Your task to perform on an android device: move an email to a new category in the gmail app Image 0: 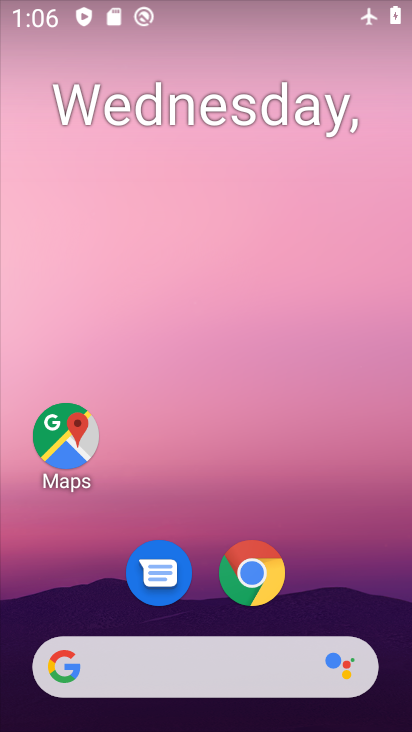
Step 0: drag from (221, 612) to (281, 154)
Your task to perform on an android device: move an email to a new category in the gmail app Image 1: 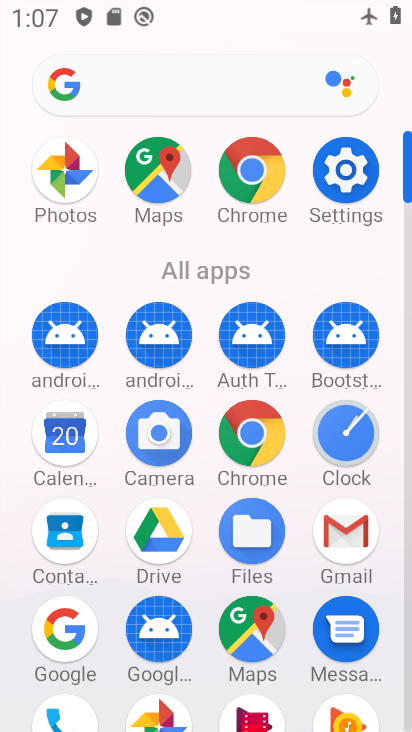
Step 1: click (349, 503)
Your task to perform on an android device: move an email to a new category in the gmail app Image 2: 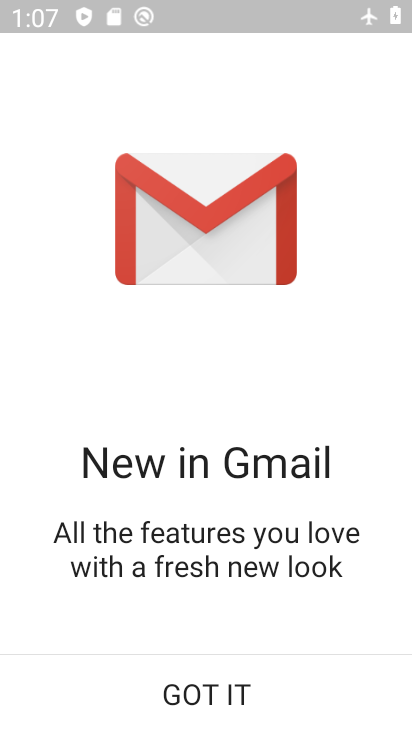
Step 2: click (244, 704)
Your task to perform on an android device: move an email to a new category in the gmail app Image 3: 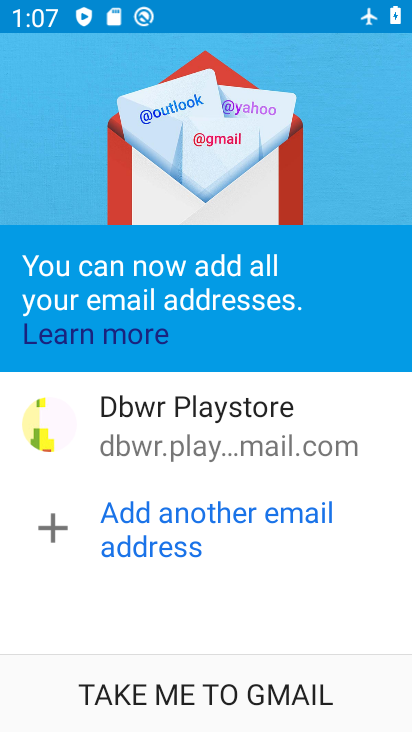
Step 3: click (271, 684)
Your task to perform on an android device: move an email to a new category in the gmail app Image 4: 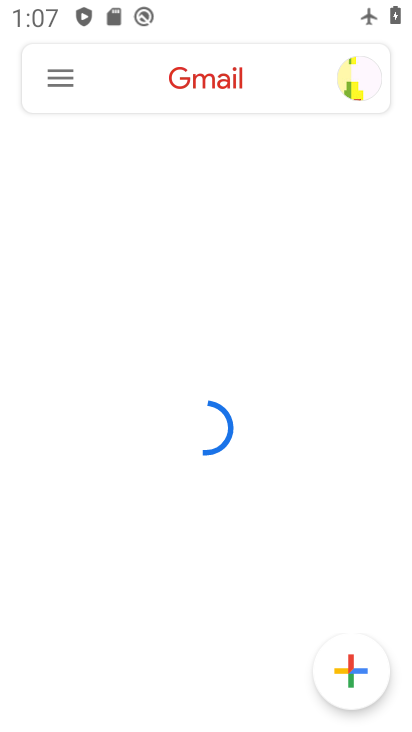
Step 4: click (53, 75)
Your task to perform on an android device: move an email to a new category in the gmail app Image 5: 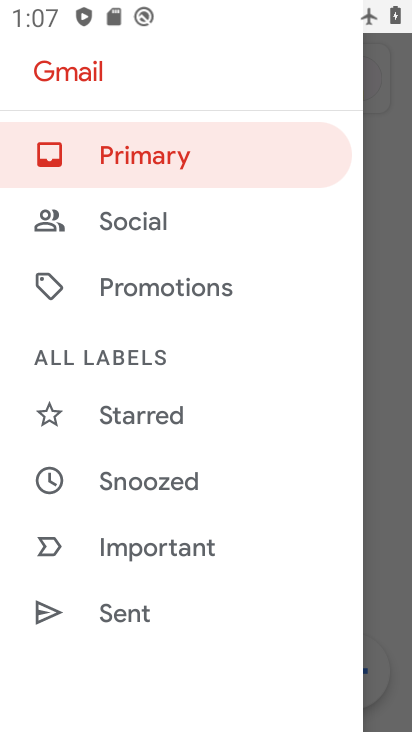
Step 5: drag from (135, 558) to (206, 207)
Your task to perform on an android device: move an email to a new category in the gmail app Image 6: 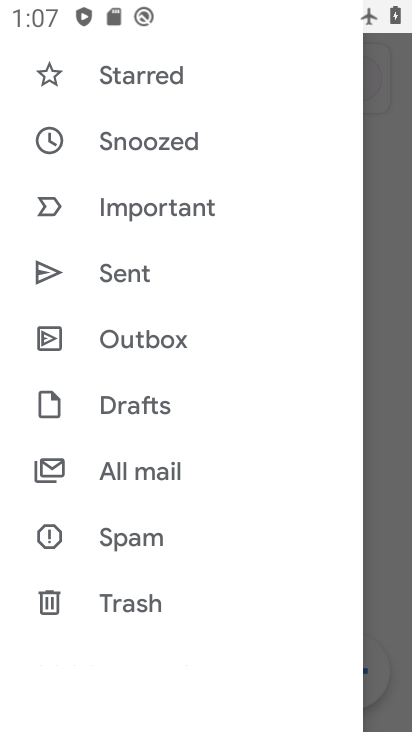
Step 6: click (148, 471)
Your task to perform on an android device: move an email to a new category in the gmail app Image 7: 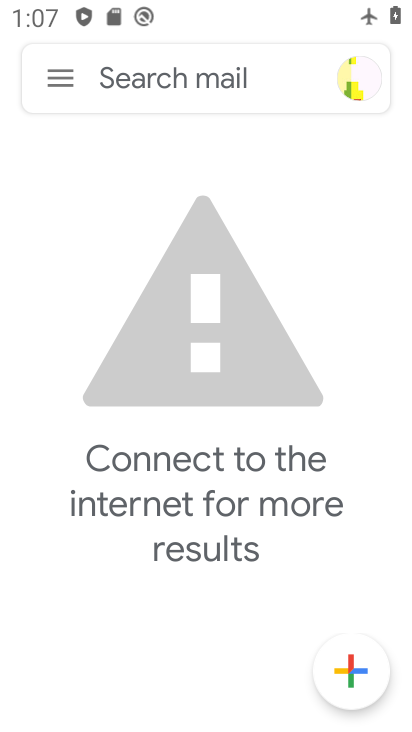
Step 7: task complete